Your task to perform on an android device: Open my contact list Image 0: 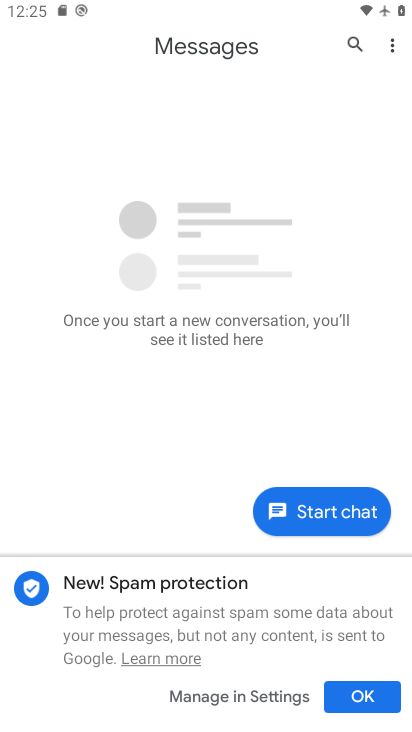
Step 0: press home button
Your task to perform on an android device: Open my contact list Image 1: 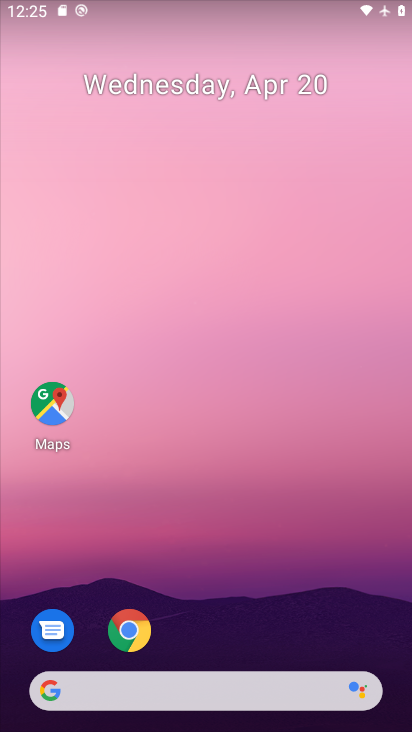
Step 1: drag from (218, 655) to (301, 8)
Your task to perform on an android device: Open my contact list Image 2: 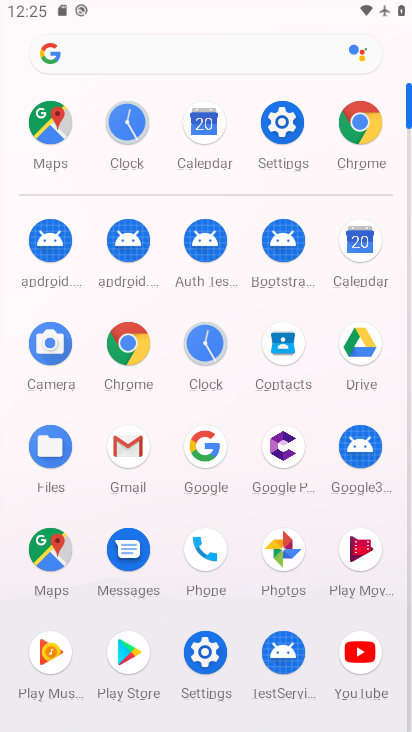
Step 2: click (292, 341)
Your task to perform on an android device: Open my contact list Image 3: 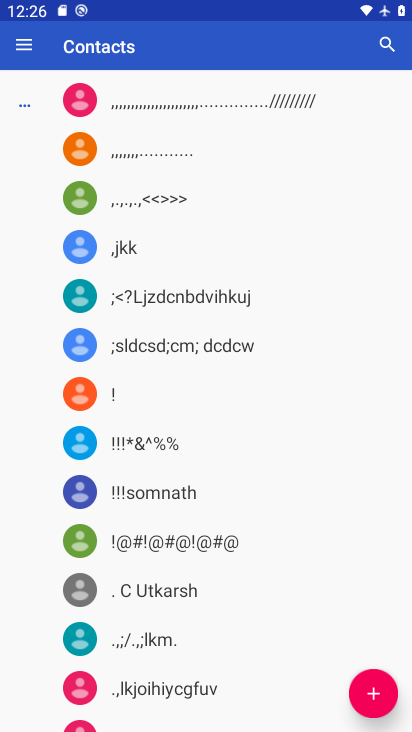
Step 3: task complete